Your task to perform on an android device: Clear all items from cart on target.com. Add "acer nitro" to the cart on target.com, then select checkout. Image 0: 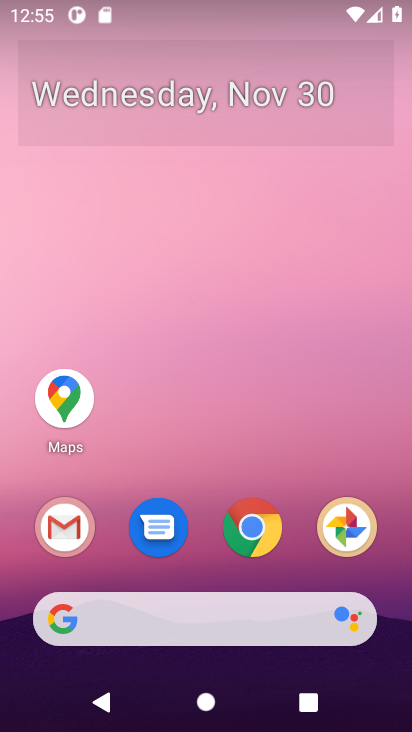
Step 0: click (170, 613)
Your task to perform on an android device: Clear all items from cart on target.com. Add "acer nitro" to the cart on target.com, then select checkout. Image 1: 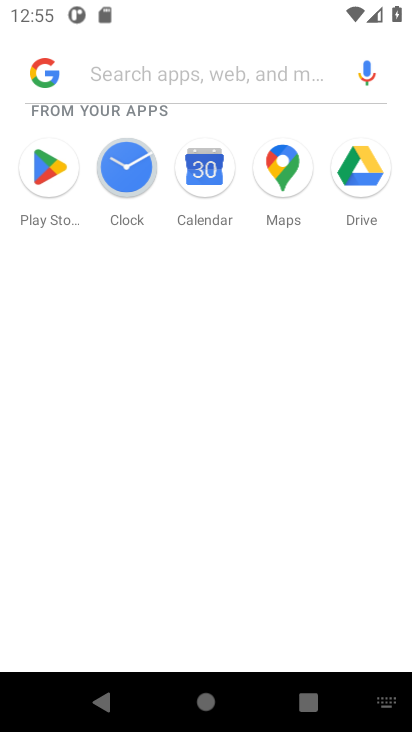
Step 1: press home button
Your task to perform on an android device: Clear all items from cart on target.com. Add "acer nitro" to the cart on target.com, then select checkout. Image 2: 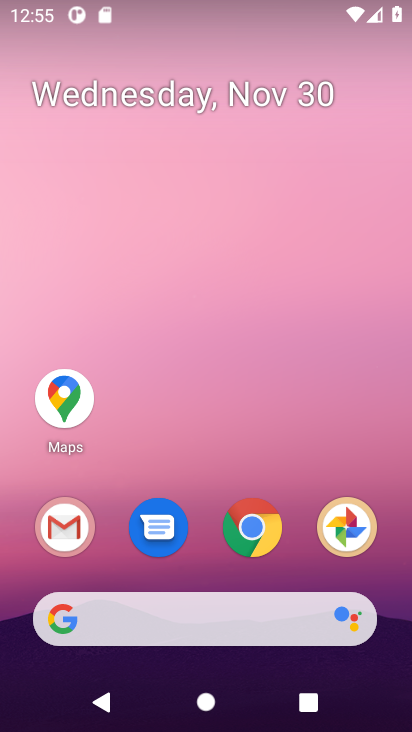
Step 2: click (265, 531)
Your task to perform on an android device: Clear all items from cart on target.com. Add "acer nitro" to the cart on target.com, then select checkout. Image 3: 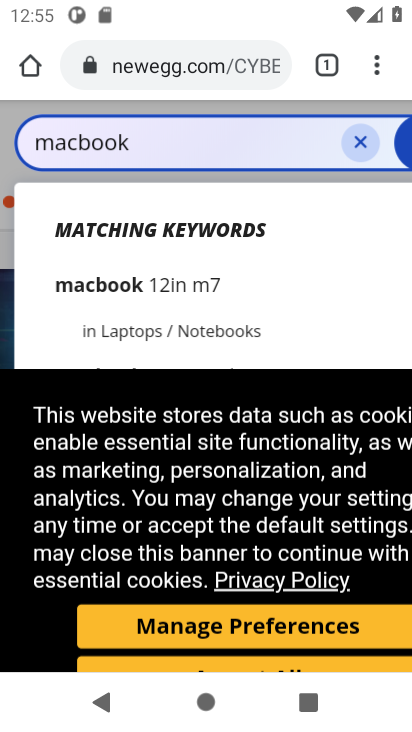
Step 3: task complete